Your task to perform on an android device: turn off location Image 0: 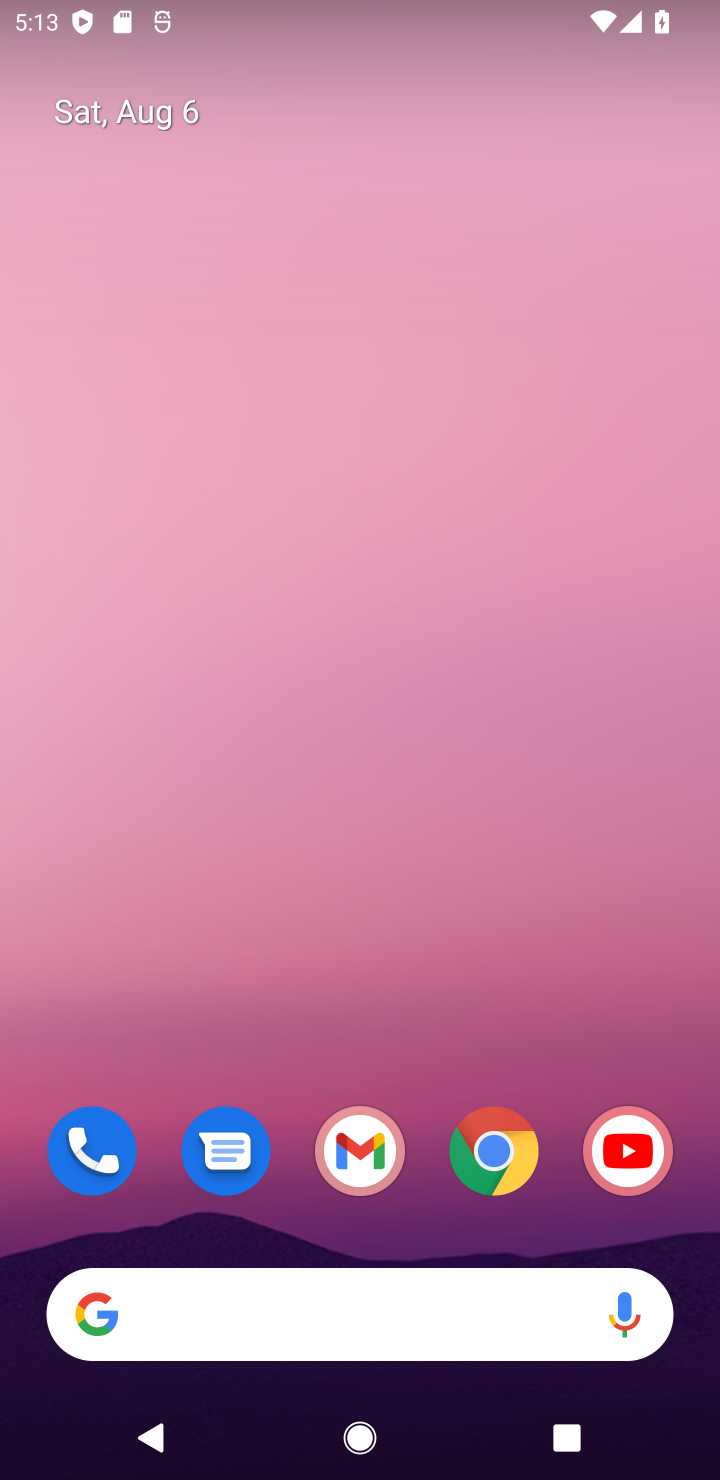
Step 0: drag from (9, 1433) to (468, 504)
Your task to perform on an android device: turn off location Image 1: 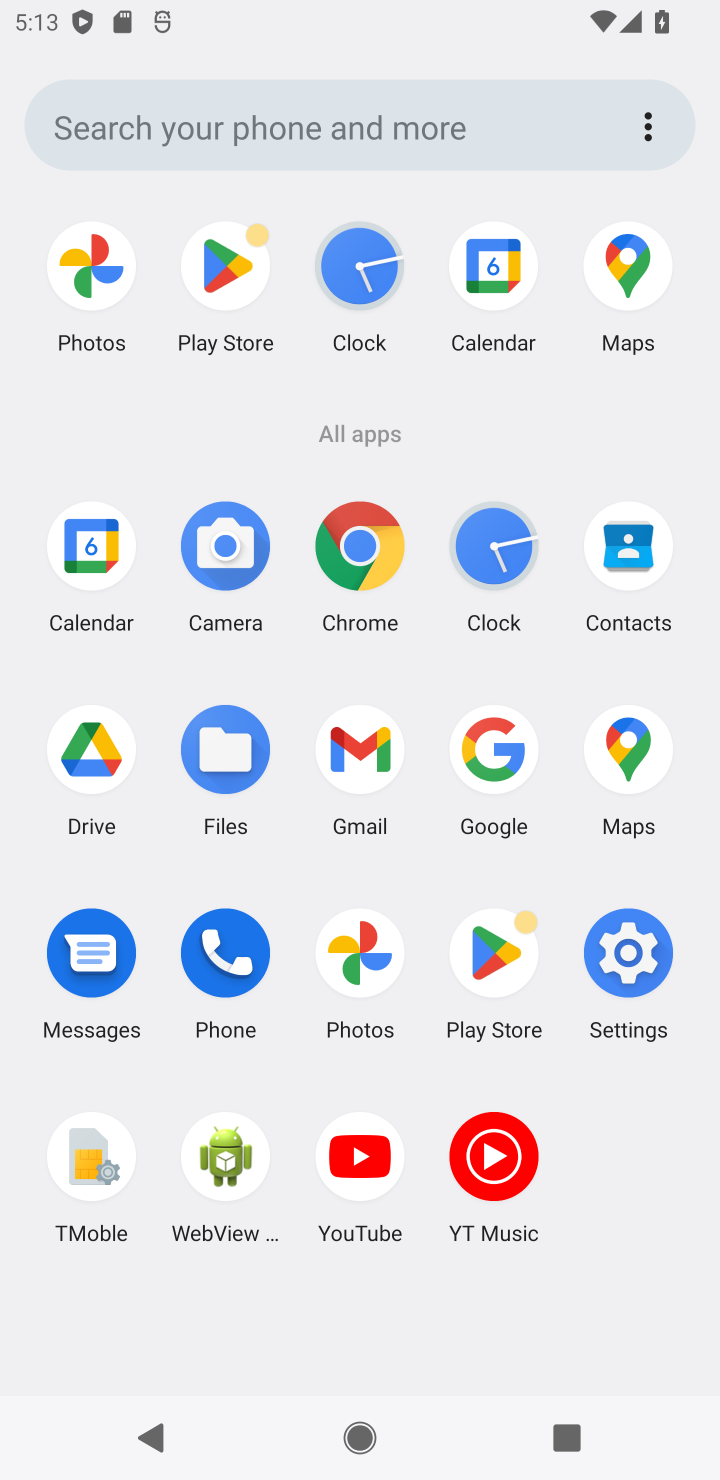
Step 1: click (615, 960)
Your task to perform on an android device: turn off location Image 2: 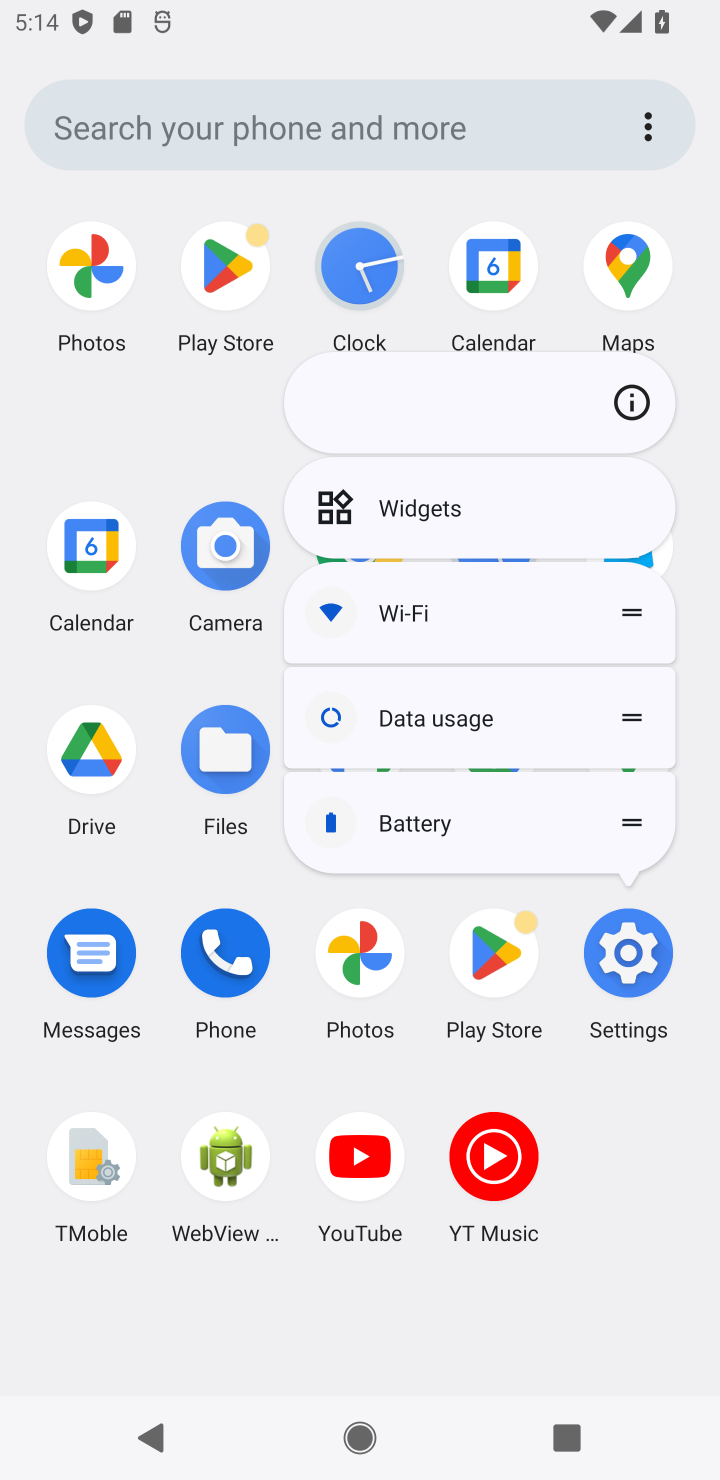
Step 2: click (617, 981)
Your task to perform on an android device: turn off location Image 3: 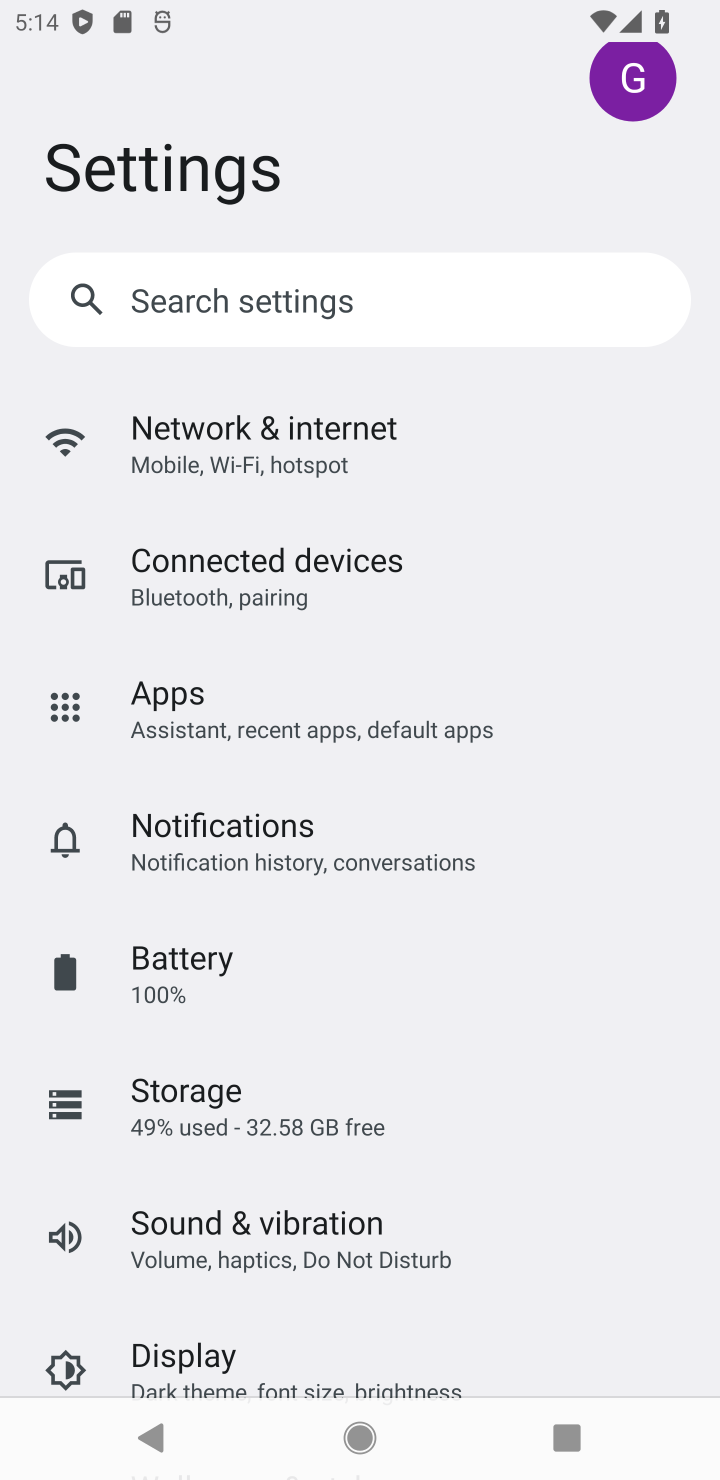
Step 3: drag from (452, 1291) to (435, 307)
Your task to perform on an android device: turn off location Image 4: 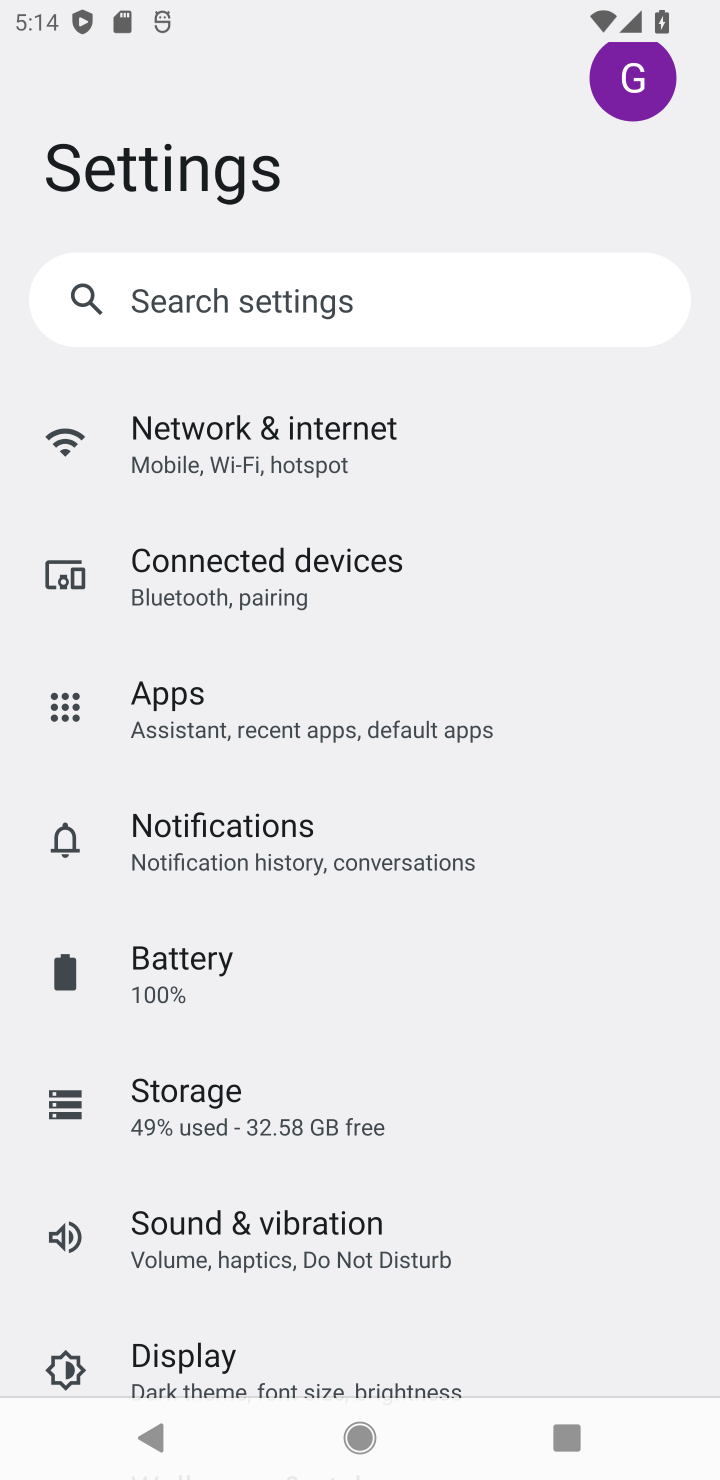
Step 4: drag from (597, 1302) to (610, 287)
Your task to perform on an android device: turn off location Image 5: 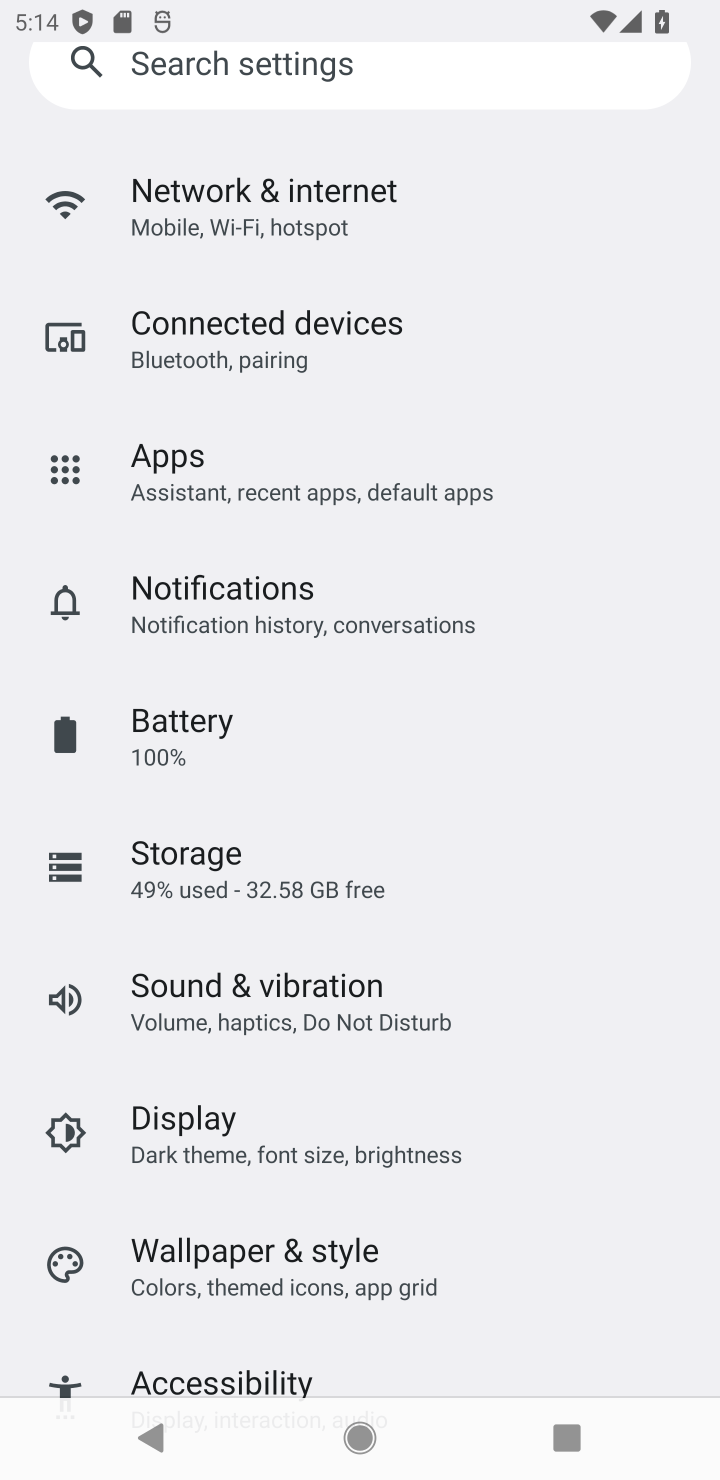
Step 5: drag from (520, 1292) to (511, 81)
Your task to perform on an android device: turn off location Image 6: 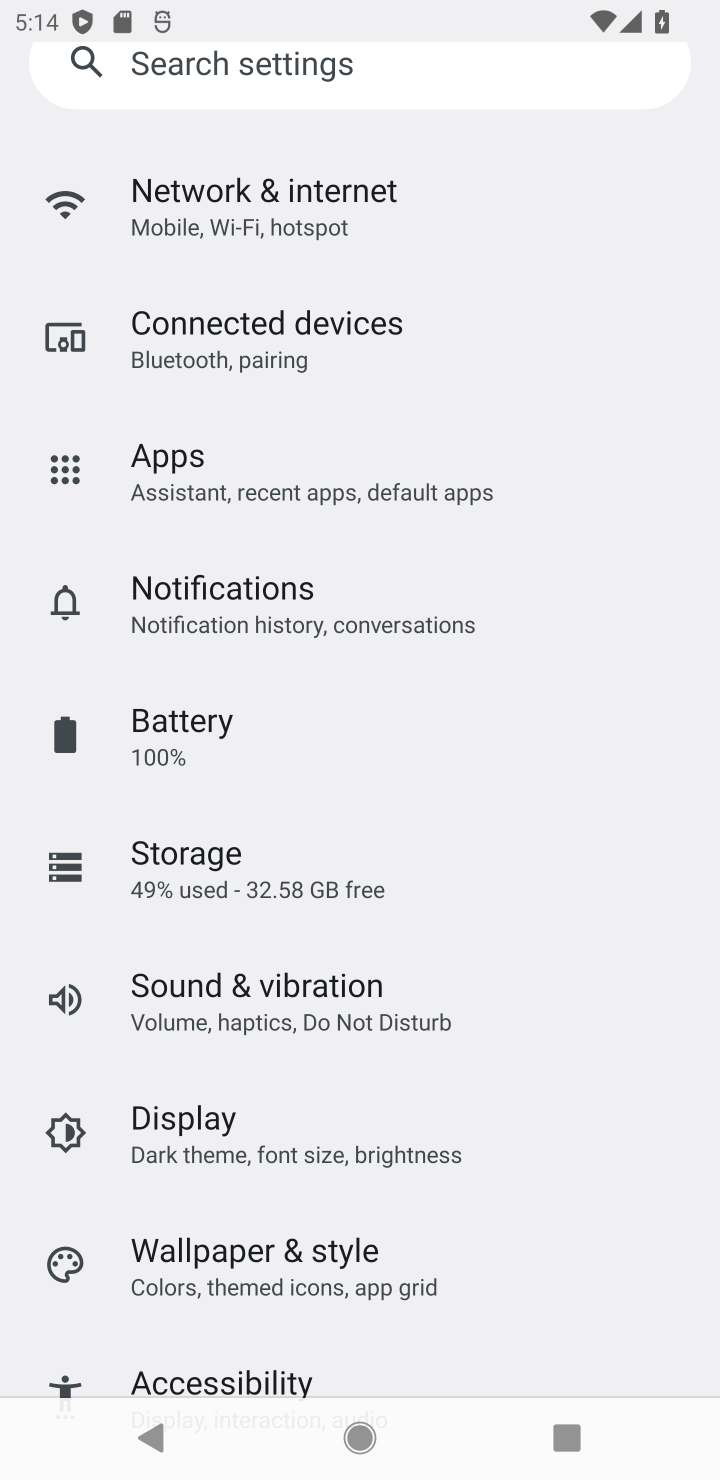
Step 6: drag from (583, 1289) to (565, 226)
Your task to perform on an android device: turn off location Image 7: 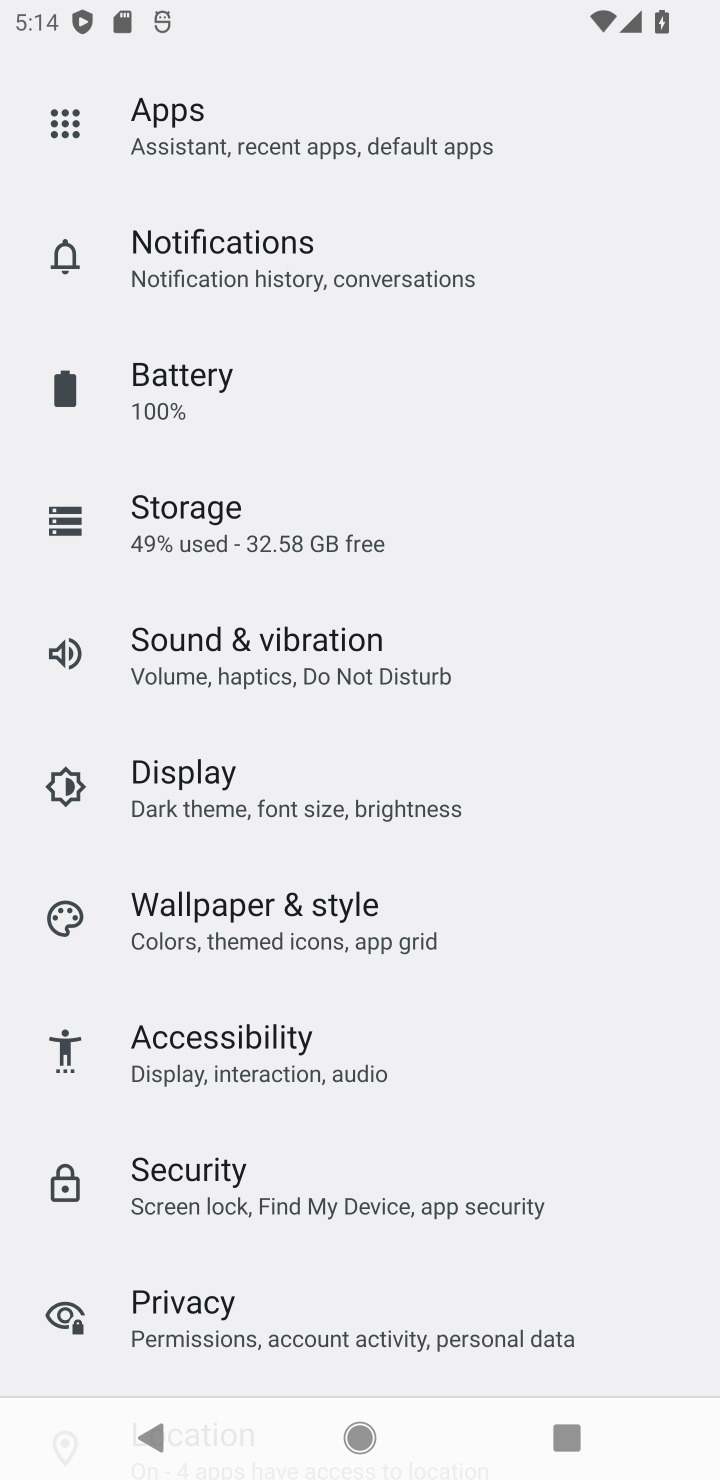
Step 7: drag from (595, 1015) to (635, 39)
Your task to perform on an android device: turn off location Image 8: 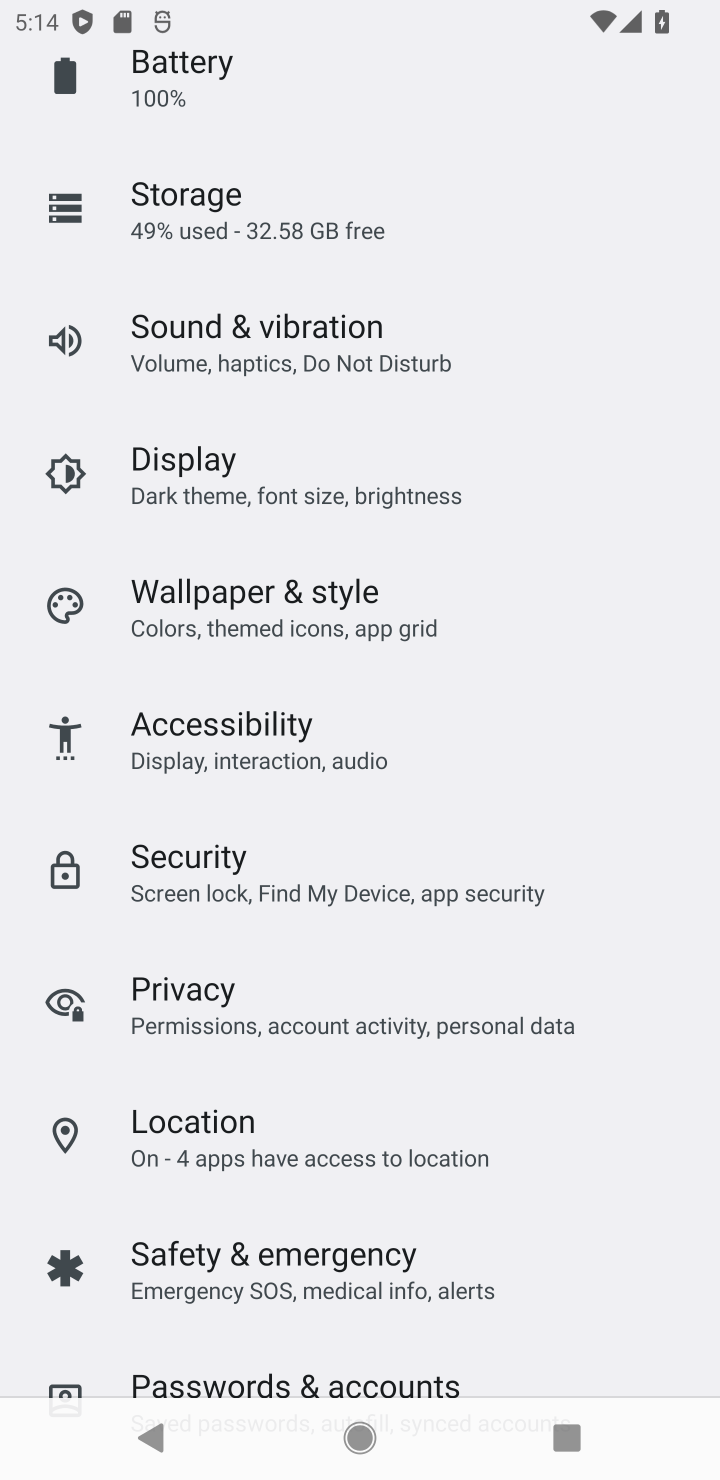
Step 8: click (324, 1134)
Your task to perform on an android device: turn off location Image 9: 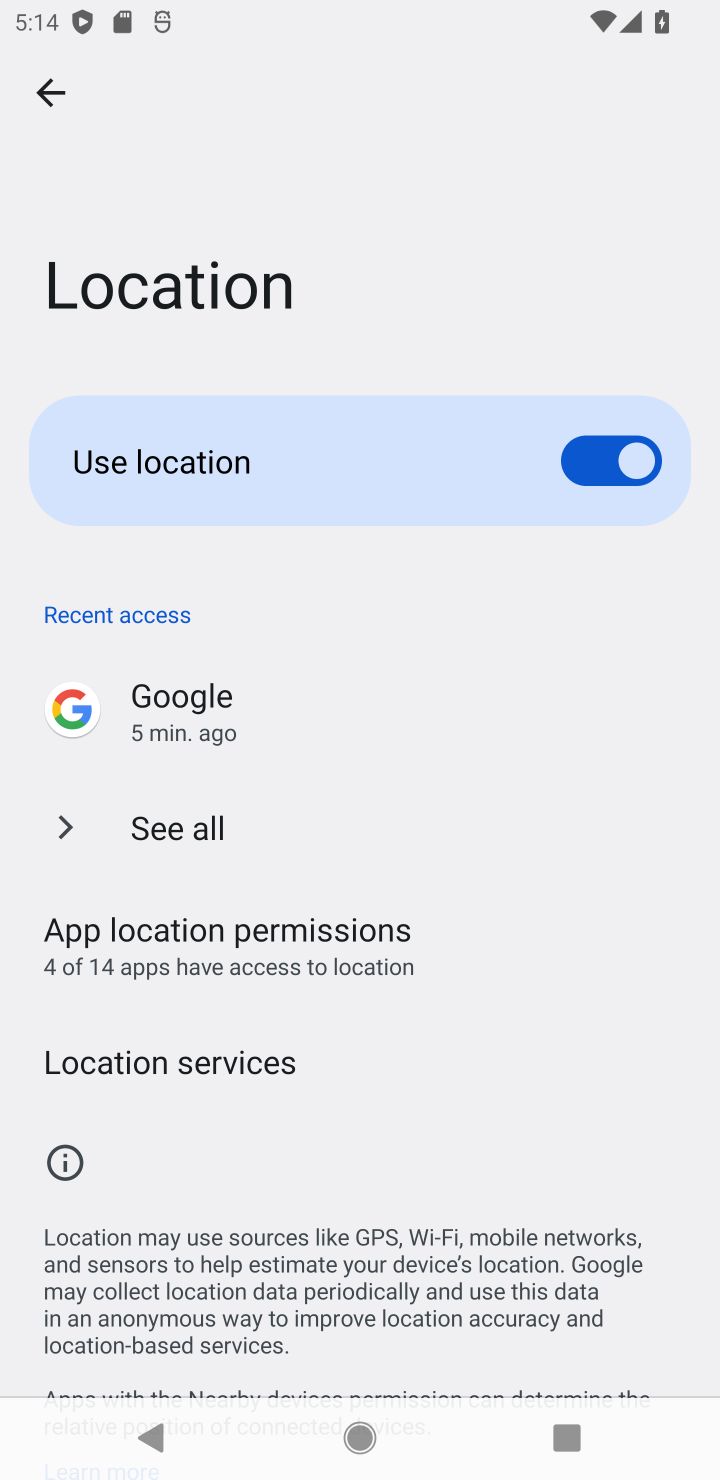
Step 9: click (577, 456)
Your task to perform on an android device: turn off location Image 10: 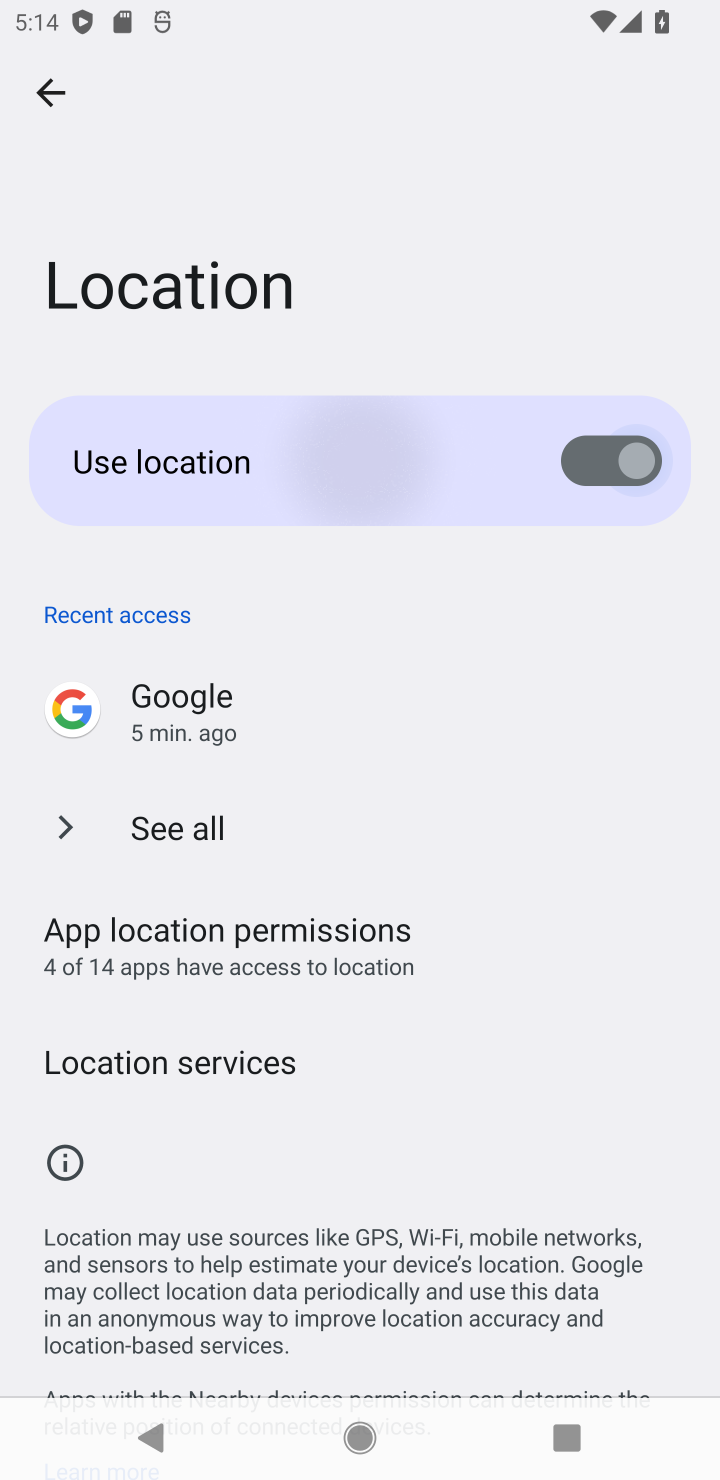
Step 10: task complete